Your task to perform on an android device: Open Google Chrome and open the bookmarks view Image 0: 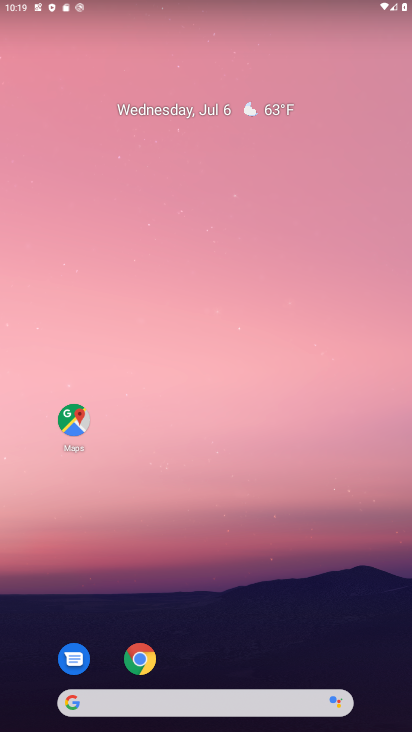
Step 0: drag from (175, 558) to (321, 59)
Your task to perform on an android device: Open Google Chrome and open the bookmarks view Image 1: 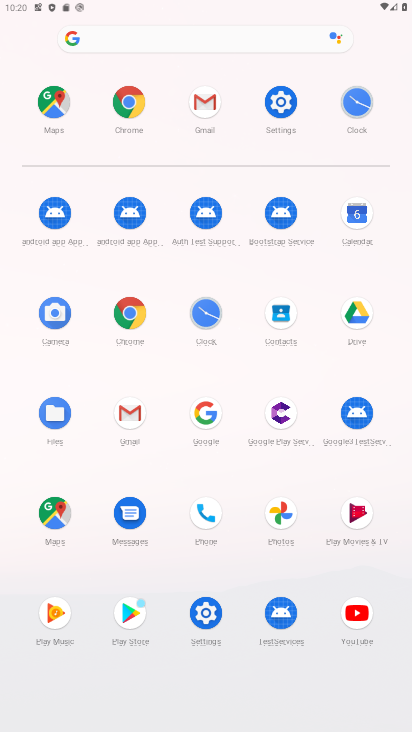
Step 1: click (133, 310)
Your task to perform on an android device: Open Google Chrome and open the bookmarks view Image 2: 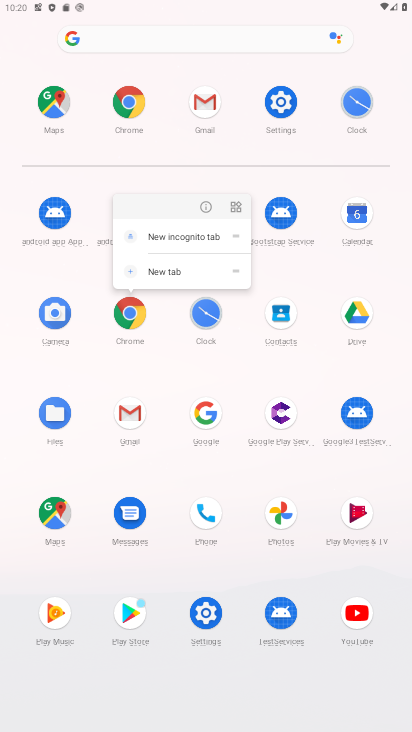
Step 2: click (206, 205)
Your task to perform on an android device: Open Google Chrome and open the bookmarks view Image 3: 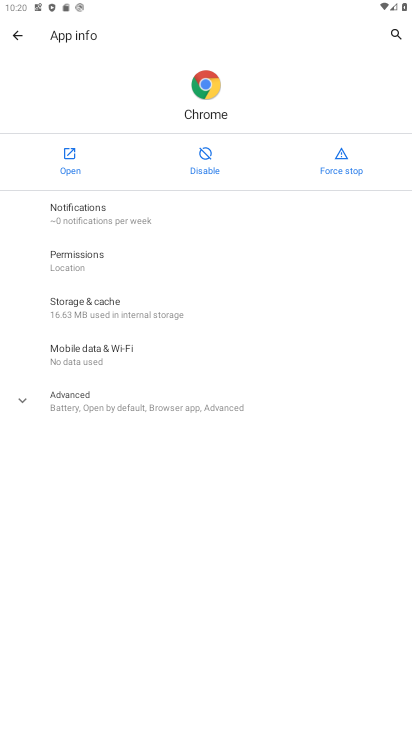
Step 3: click (66, 170)
Your task to perform on an android device: Open Google Chrome and open the bookmarks view Image 4: 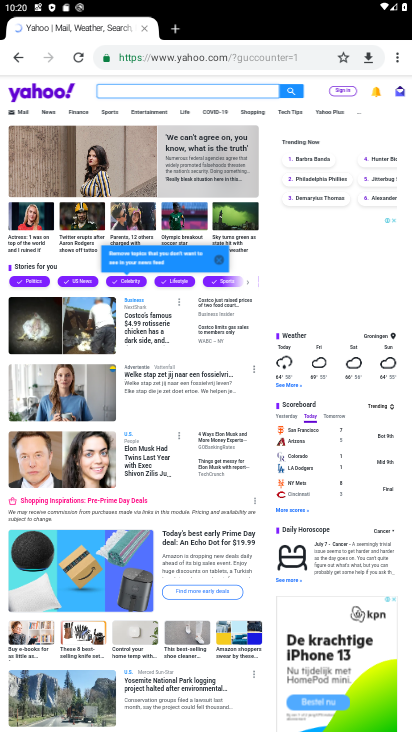
Step 4: click (396, 54)
Your task to perform on an android device: Open Google Chrome and open the bookmarks view Image 5: 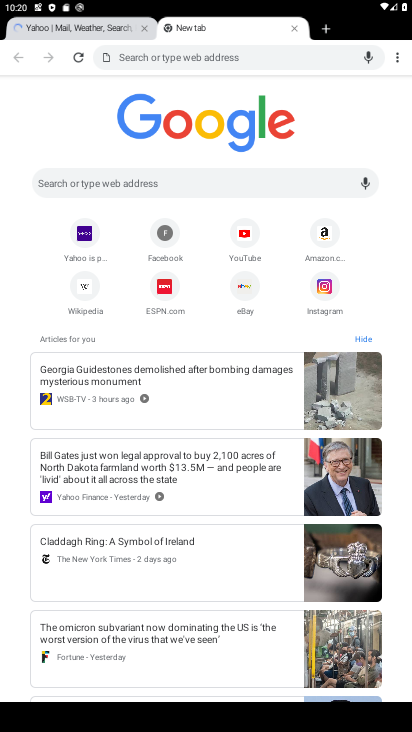
Step 5: task complete